Your task to perform on an android device: What's the weather going to be tomorrow? Image 0: 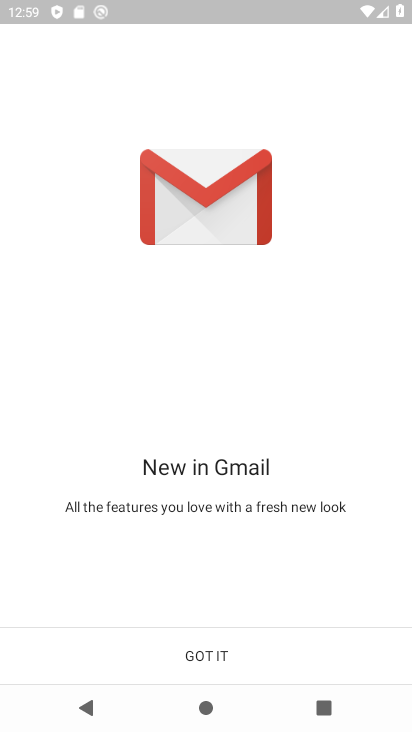
Step 0: press home button
Your task to perform on an android device: What's the weather going to be tomorrow? Image 1: 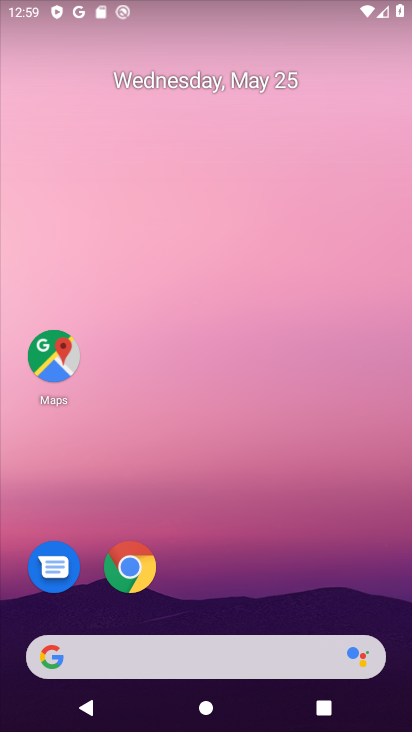
Step 1: drag from (308, 568) to (252, 115)
Your task to perform on an android device: What's the weather going to be tomorrow? Image 2: 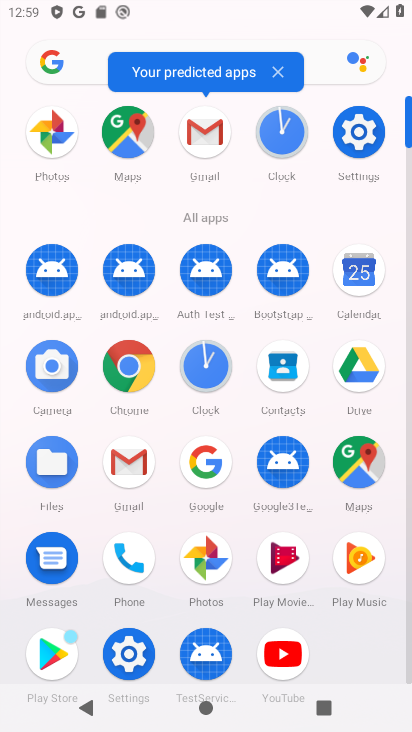
Step 2: click (92, 64)
Your task to perform on an android device: What's the weather going to be tomorrow? Image 3: 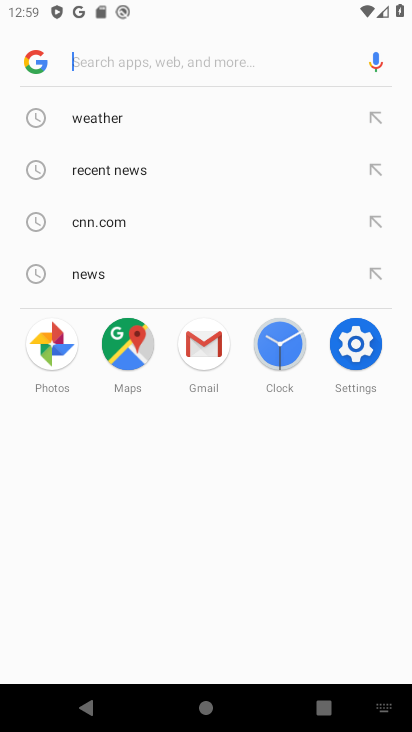
Step 3: type "what's the weather going to be tomorrow"
Your task to perform on an android device: What's the weather going to be tomorrow? Image 4: 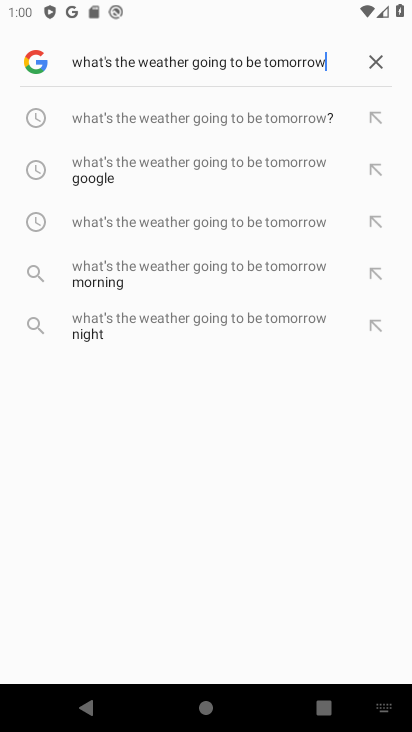
Step 4: click (289, 115)
Your task to perform on an android device: What's the weather going to be tomorrow? Image 5: 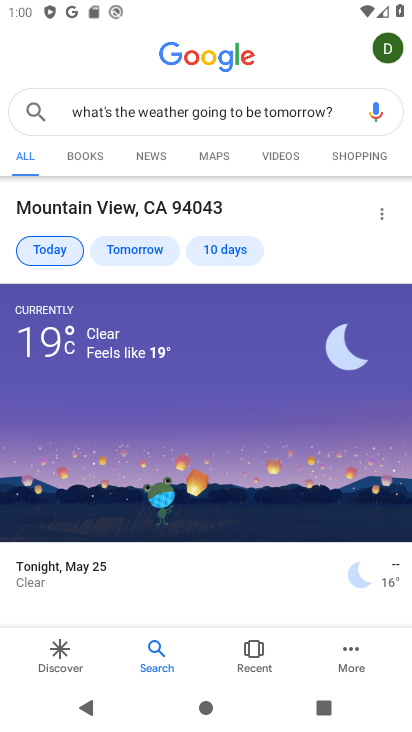
Step 5: task complete